Your task to perform on an android device: Open maps Image 0: 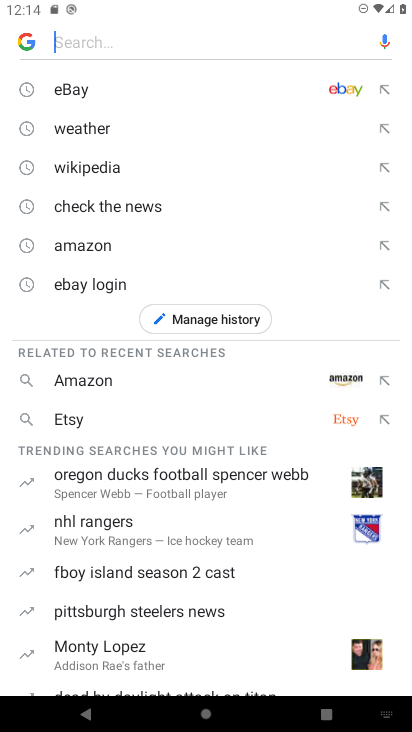
Step 0: press home button
Your task to perform on an android device: Open maps Image 1: 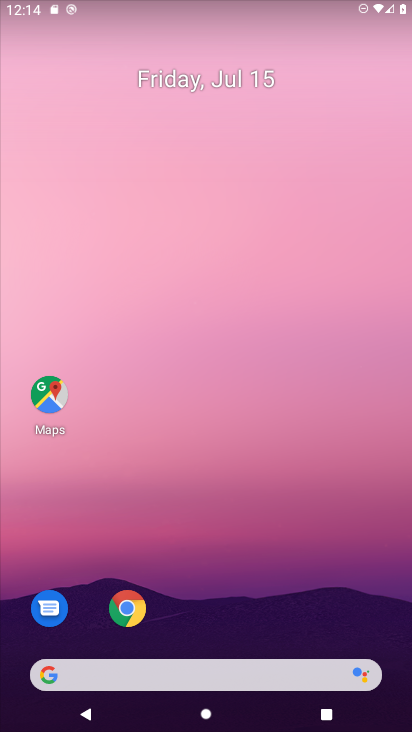
Step 1: drag from (250, 609) to (342, 46)
Your task to perform on an android device: Open maps Image 2: 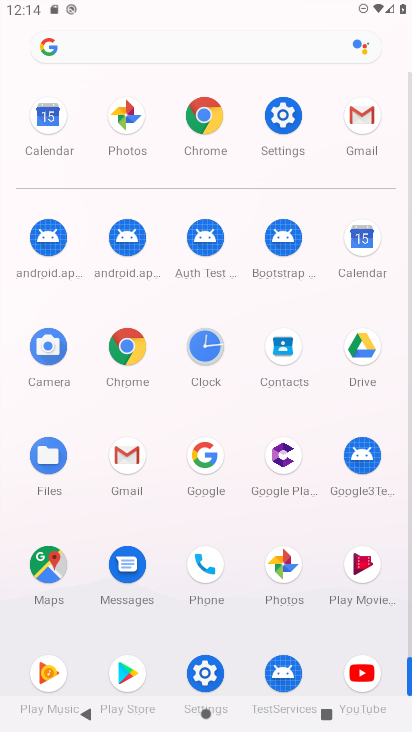
Step 2: click (55, 571)
Your task to perform on an android device: Open maps Image 3: 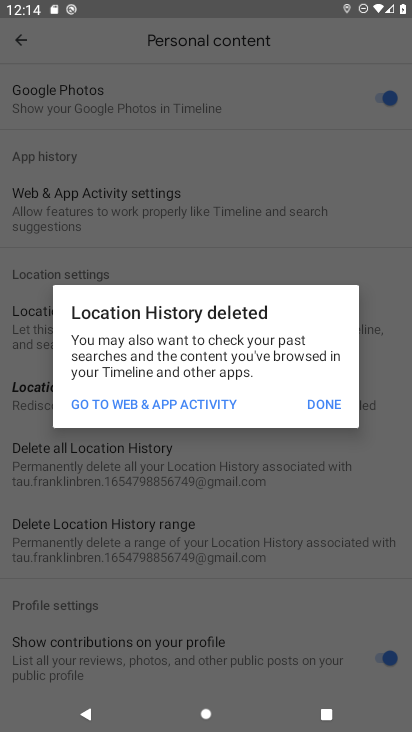
Step 3: click (313, 397)
Your task to perform on an android device: Open maps Image 4: 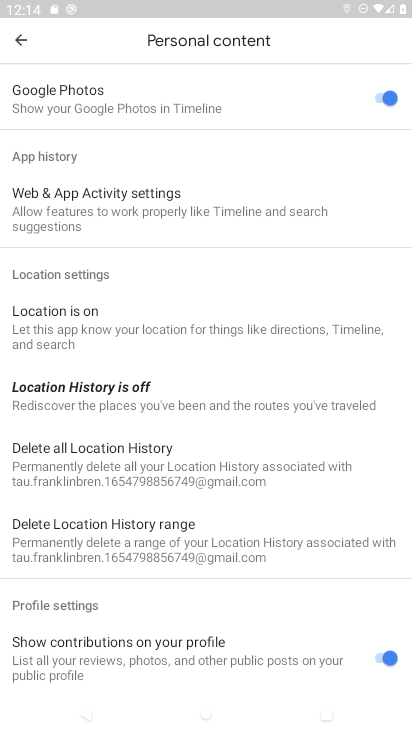
Step 4: task complete